Your task to perform on an android device: Open the Play Movies app and select the watchlist tab. Image 0: 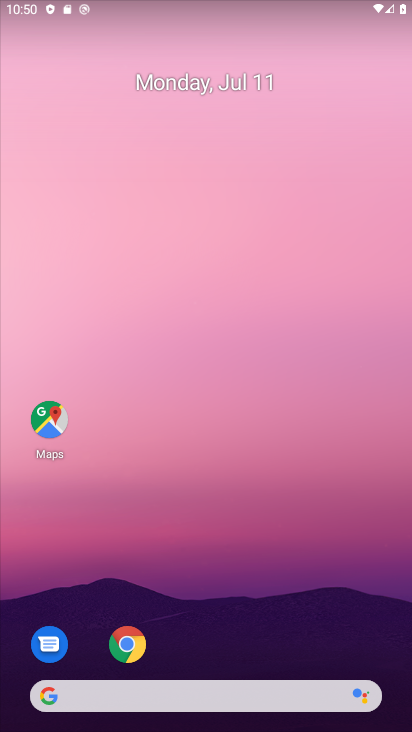
Step 0: drag from (253, 698) to (295, 172)
Your task to perform on an android device: Open the Play Movies app and select the watchlist tab. Image 1: 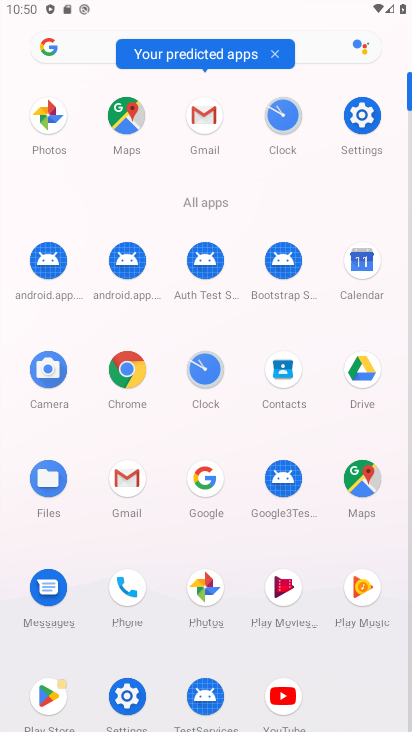
Step 1: click (281, 594)
Your task to perform on an android device: Open the Play Movies app and select the watchlist tab. Image 2: 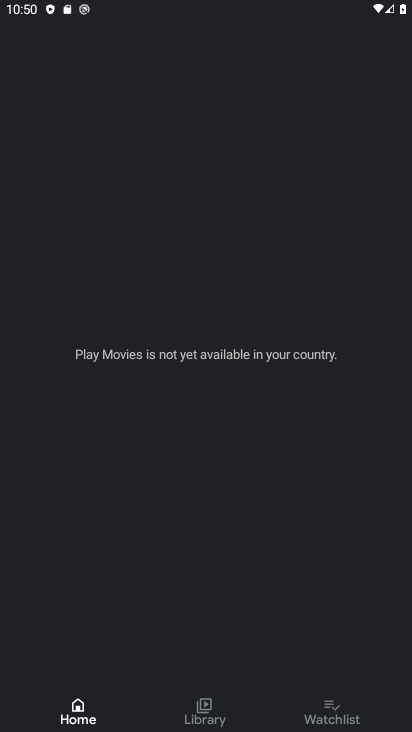
Step 2: click (339, 710)
Your task to perform on an android device: Open the Play Movies app and select the watchlist tab. Image 3: 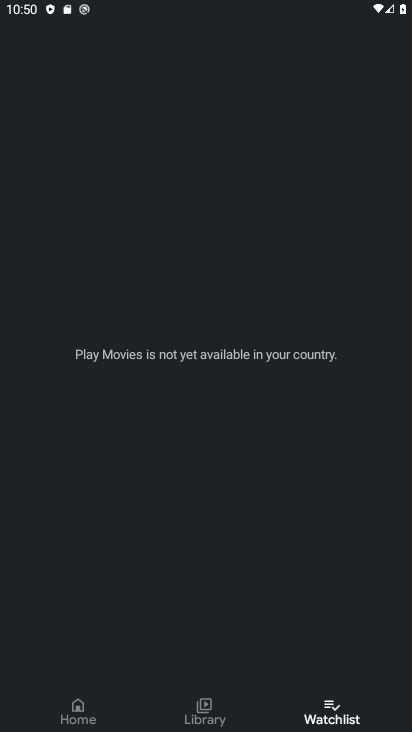
Step 3: click (339, 710)
Your task to perform on an android device: Open the Play Movies app and select the watchlist tab. Image 4: 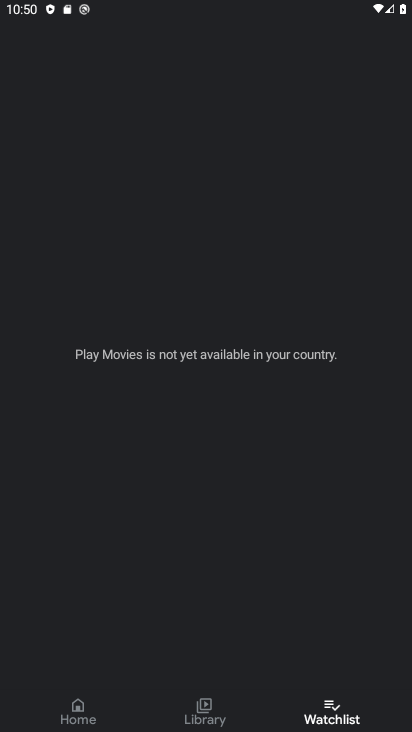
Step 4: task complete